Your task to perform on an android device: turn on bluetooth scan Image 0: 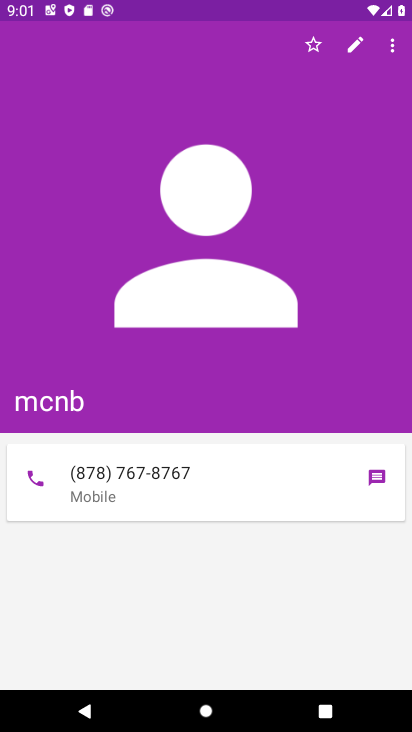
Step 0: press home button
Your task to perform on an android device: turn on bluetooth scan Image 1: 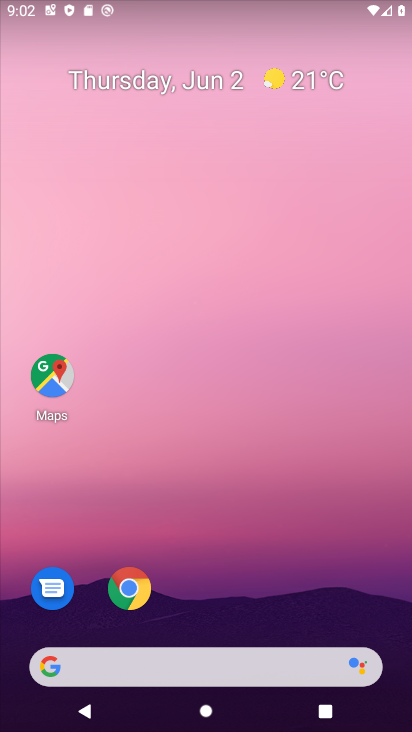
Step 1: drag from (249, 673) to (213, 36)
Your task to perform on an android device: turn on bluetooth scan Image 2: 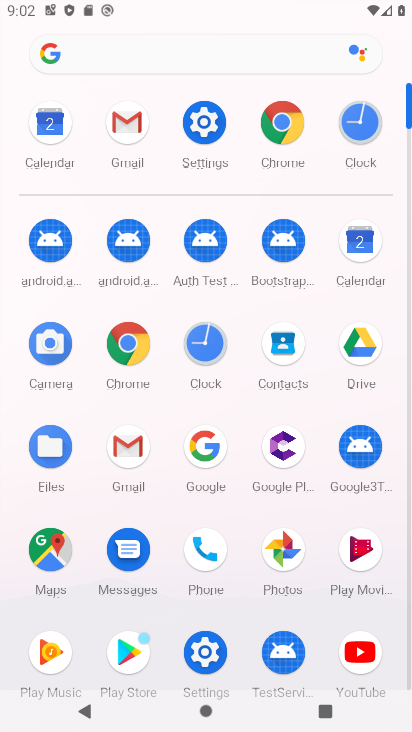
Step 2: click (205, 142)
Your task to perform on an android device: turn on bluetooth scan Image 3: 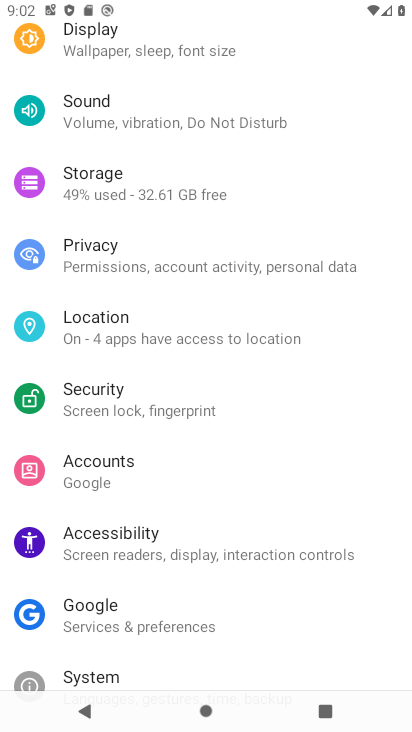
Step 3: click (134, 326)
Your task to perform on an android device: turn on bluetooth scan Image 4: 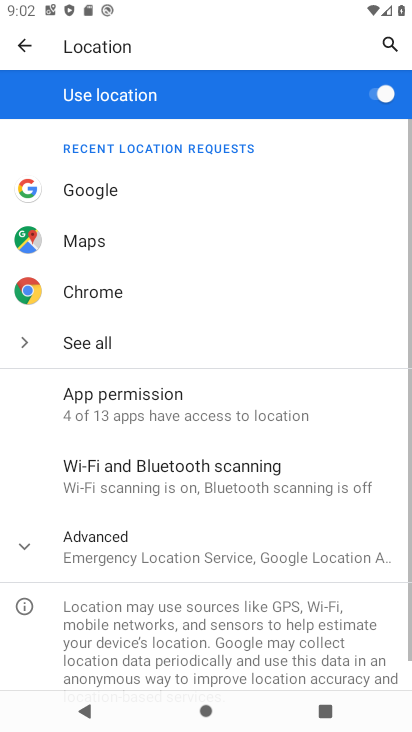
Step 4: click (171, 479)
Your task to perform on an android device: turn on bluetooth scan Image 5: 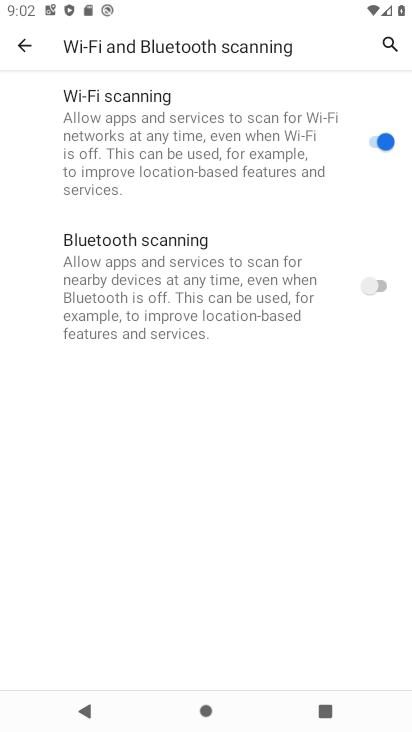
Step 5: click (377, 284)
Your task to perform on an android device: turn on bluetooth scan Image 6: 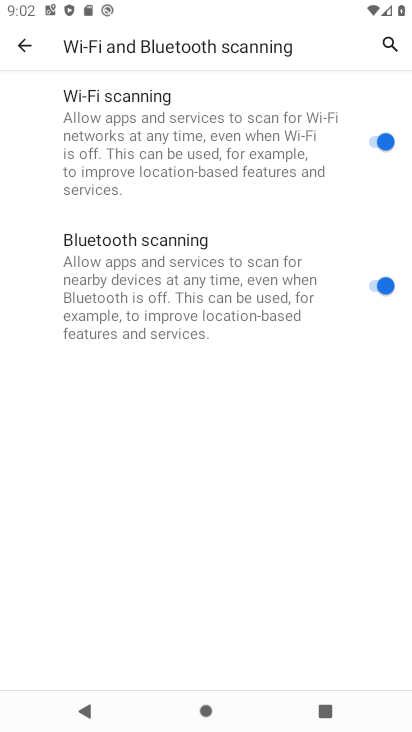
Step 6: task complete